Your task to perform on an android device: Open network settings Image 0: 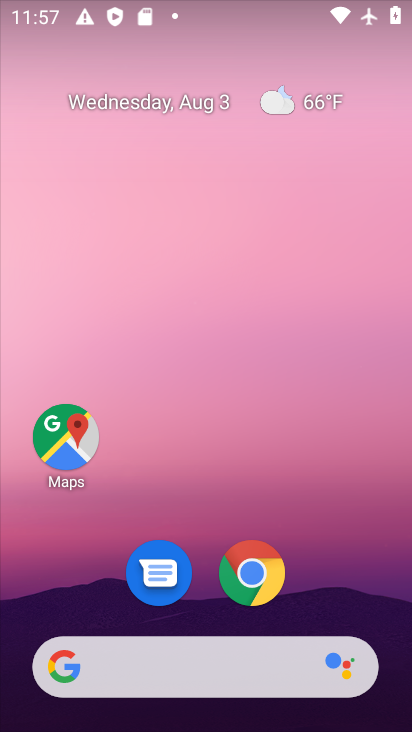
Step 0: drag from (323, 566) to (380, 3)
Your task to perform on an android device: Open network settings Image 1: 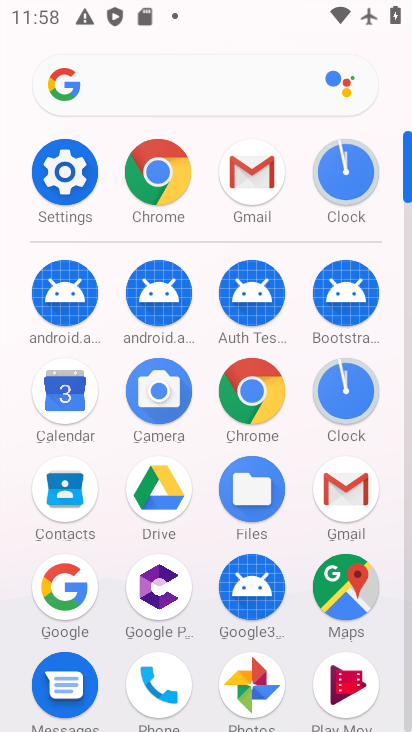
Step 1: click (74, 177)
Your task to perform on an android device: Open network settings Image 2: 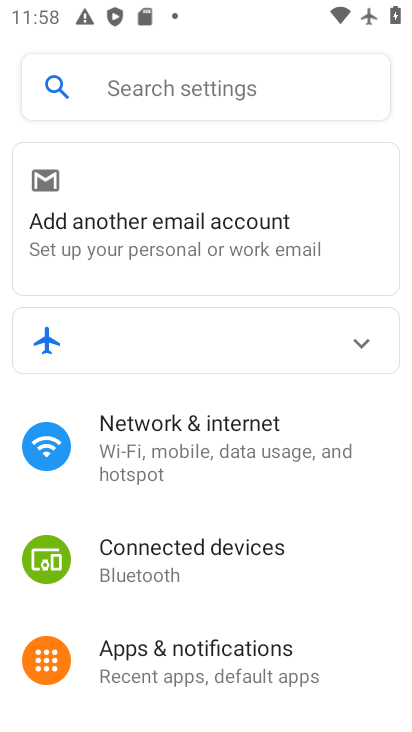
Step 2: click (240, 469)
Your task to perform on an android device: Open network settings Image 3: 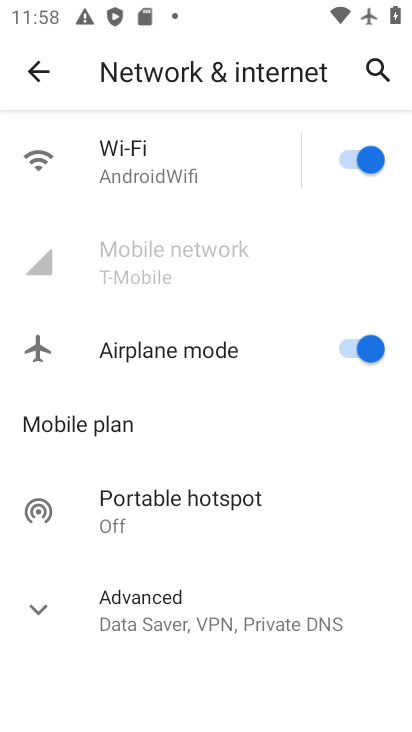
Step 3: task complete